Your task to perform on an android device: allow notifications from all sites in the chrome app Image 0: 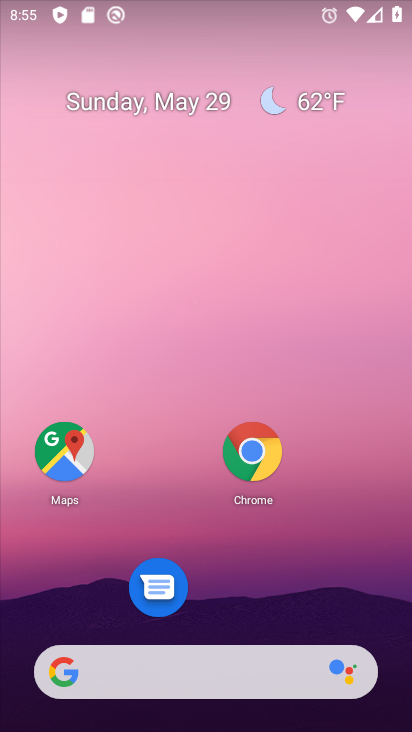
Step 0: click (254, 453)
Your task to perform on an android device: allow notifications from all sites in the chrome app Image 1: 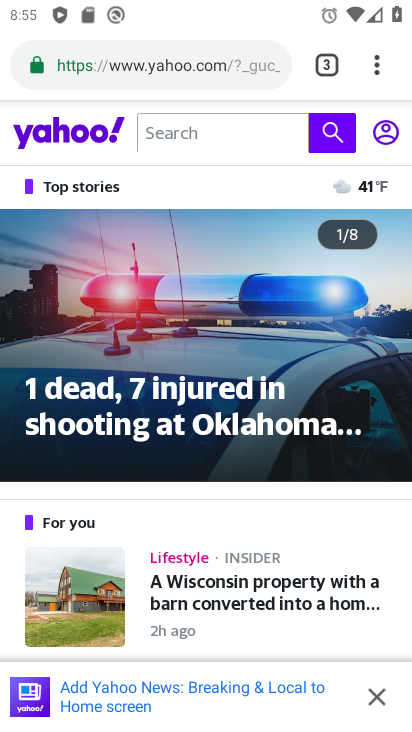
Step 1: click (378, 69)
Your task to perform on an android device: allow notifications from all sites in the chrome app Image 2: 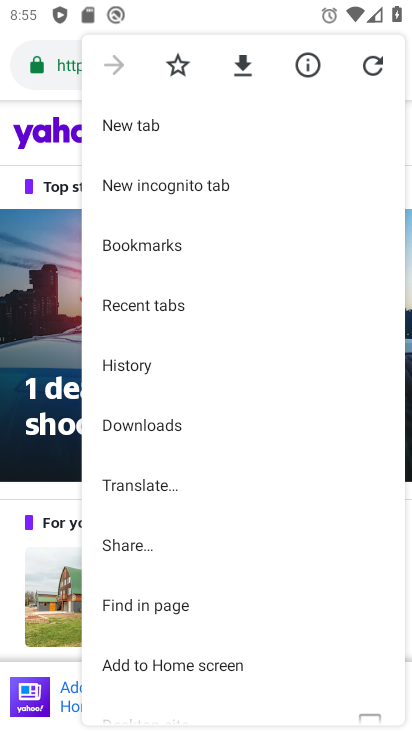
Step 2: drag from (182, 661) to (185, 73)
Your task to perform on an android device: allow notifications from all sites in the chrome app Image 3: 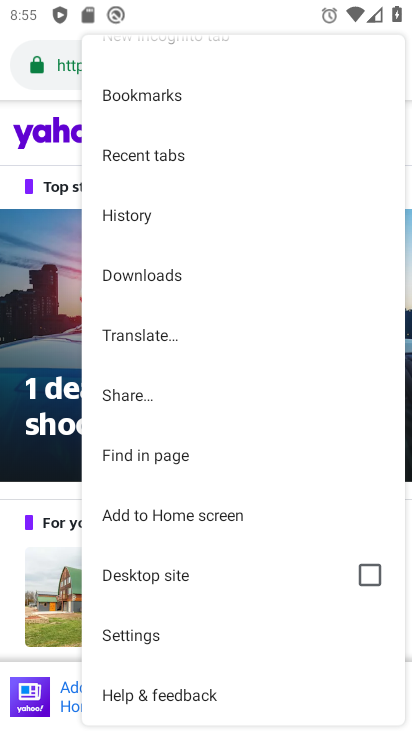
Step 3: click (168, 654)
Your task to perform on an android device: allow notifications from all sites in the chrome app Image 4: 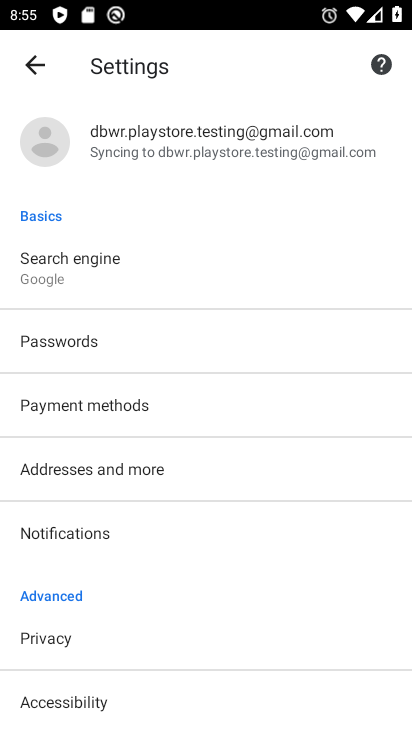
Step 4: drag from (168, 654) to (186, 178)
Your task to perform on an android device: allow notifications from all sites in the chrome app Image 5: 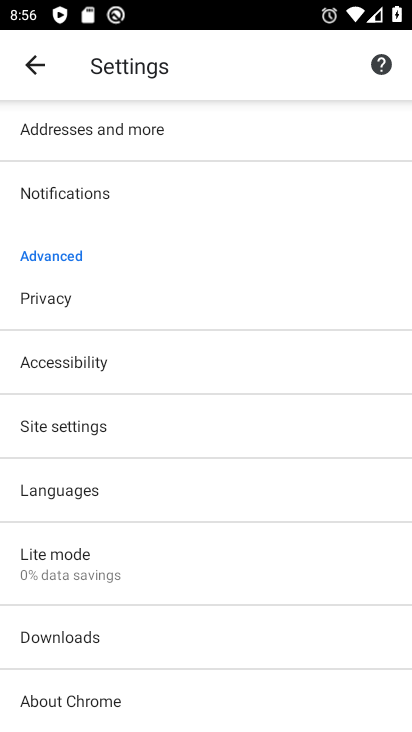
Step 5: drag from (97, 550) to (104, 260)
Your task to perform on an android device: allow notifications from all sites in the chrome app Image 6: 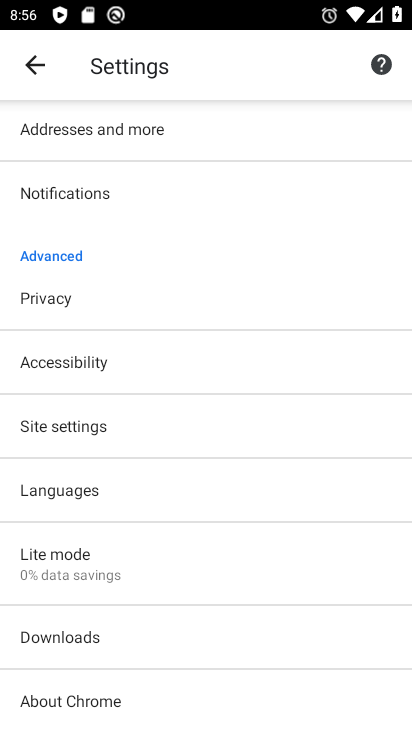
Step 6: click (174, 208)
Your task to perform on an android device: allow notifications from all sites in the chrome app Image 7: 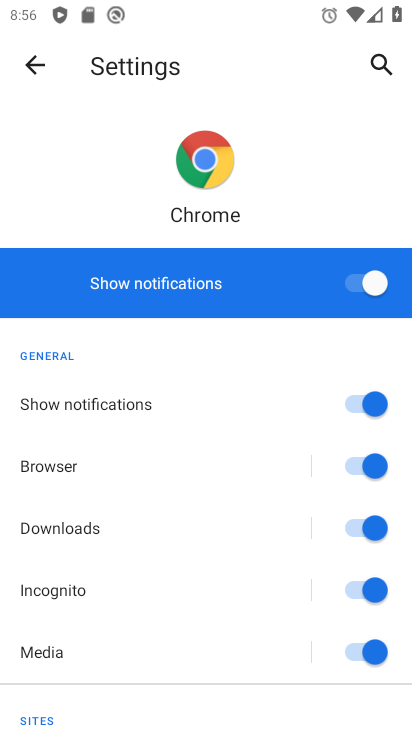
Step 7: task complete